Your task to perform on an android device: toggle location history Image 0: 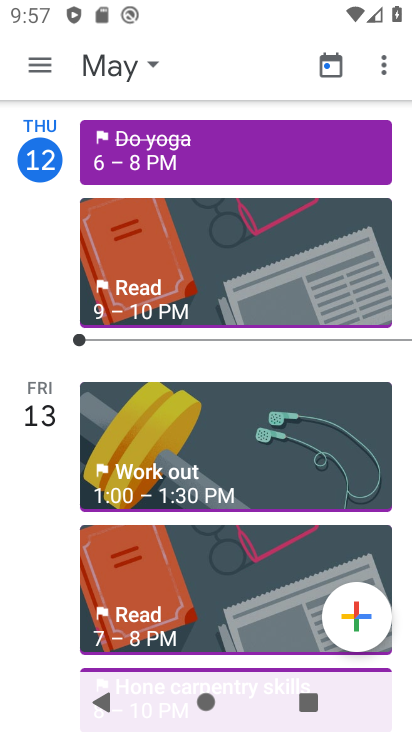
Step 0: press home button
Your task to perform on an android device: toggle location history Image 1: 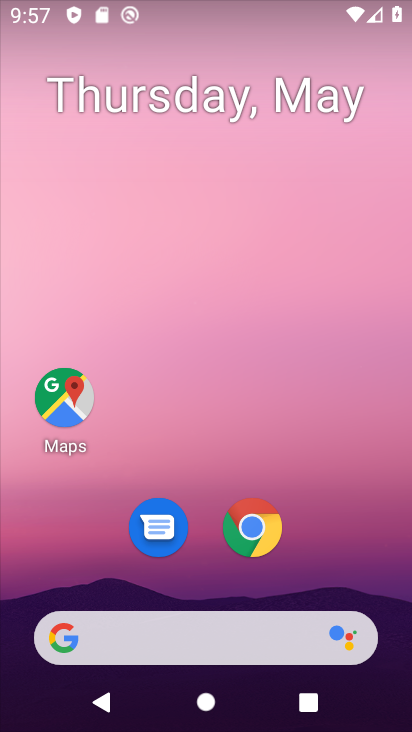
Step 1: drag from (225, 572) to (214, 173)
Your task to perform on an android device: toggle location history Image 2: 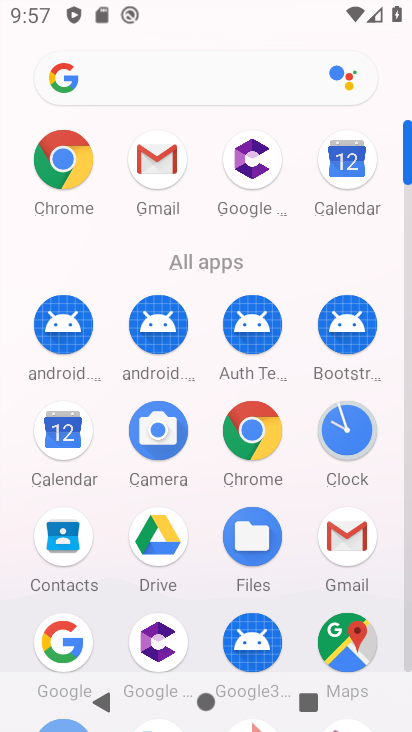
Step 2: drag from (289, 603) to (309, 314)
Your task to perform on an android device: toggle location history Image 3: 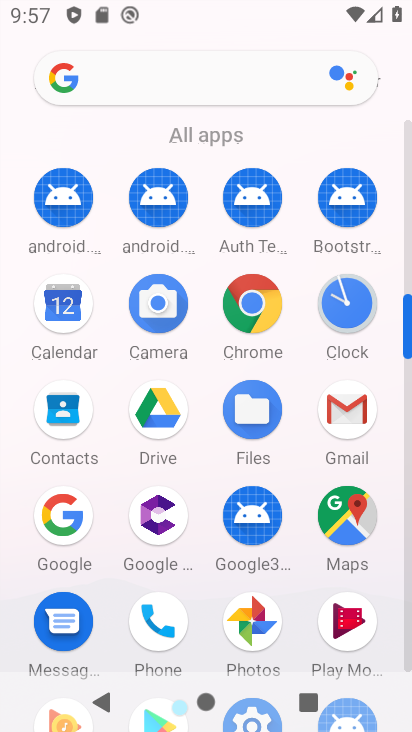
Step 3: drag from (290, 618) to (296, 211)
Your task to perform on an android device: toggle location history Image 4: 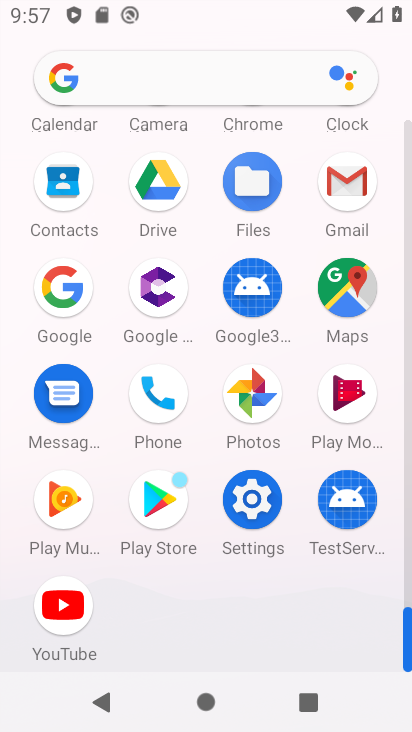
Step 4: click (252, 529)
Your task to perform on an android device: toggle location history Image 5: 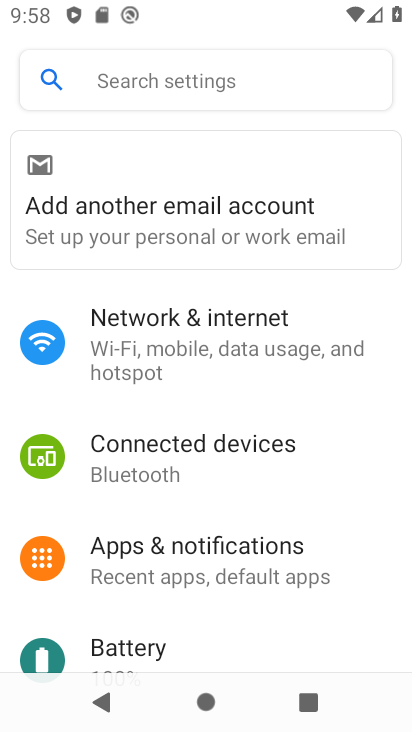
Step 5: drag from (257, 590) to (271, 287)
Your task to perform on an android device: toggle location history Image 6: 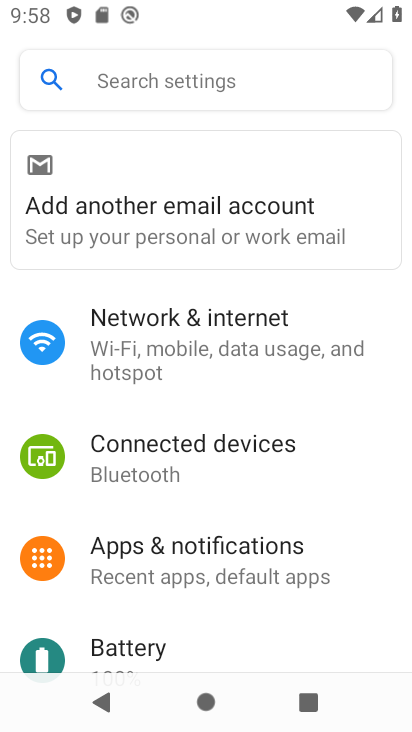
Step 6: drag from (196, 594) to (198, 211)
Your task to perform on an android device: toggle location history Image 7: 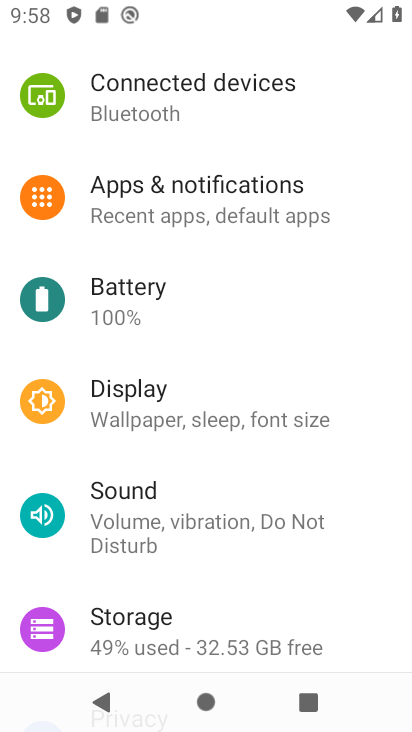
Step 7: drag from (165, 568) to (169, 186)
Your task to perform on an android device: toggle location history Image 8: 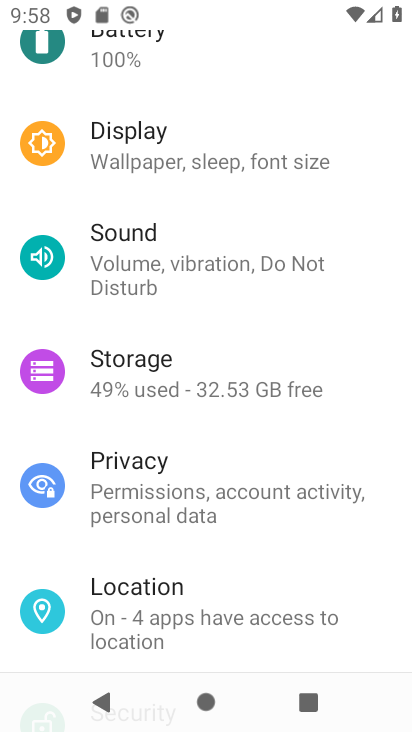
Step 8: click (158, 602)
Your task to perform on an android device: toggle location history Image 9: 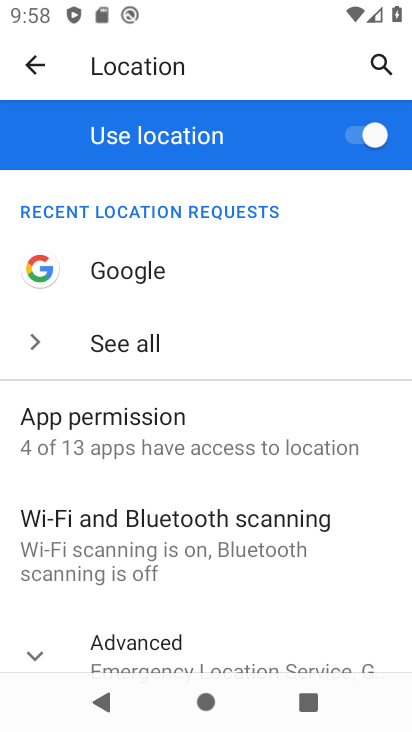
Step 9: drag from (165, 638) to (205, 256)
Your task to perform on an android device: toggle location history Image 10: 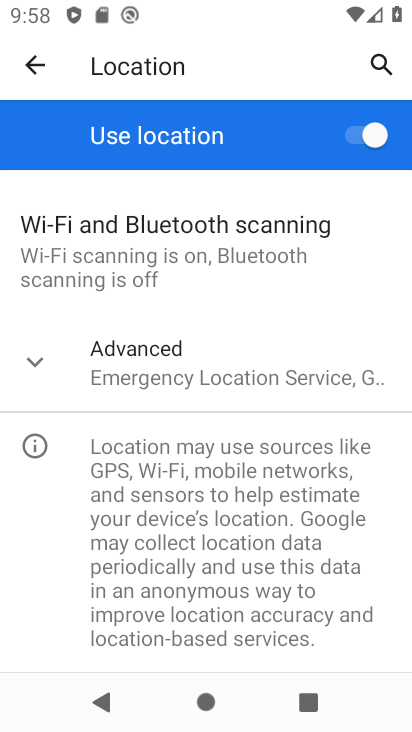
Step 10: click (145, 376)
Your task to perform on an android device: toggle location history Image 11: 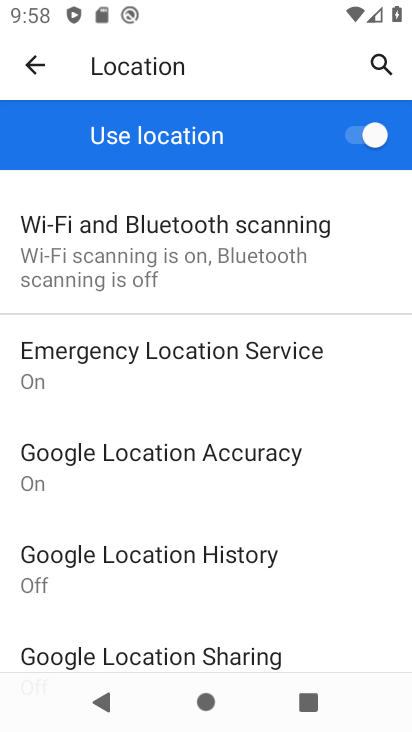
Step 11: drag from (145, 608) to (212, 255)
Your task to perform on an android device: toggle location history Image 12: 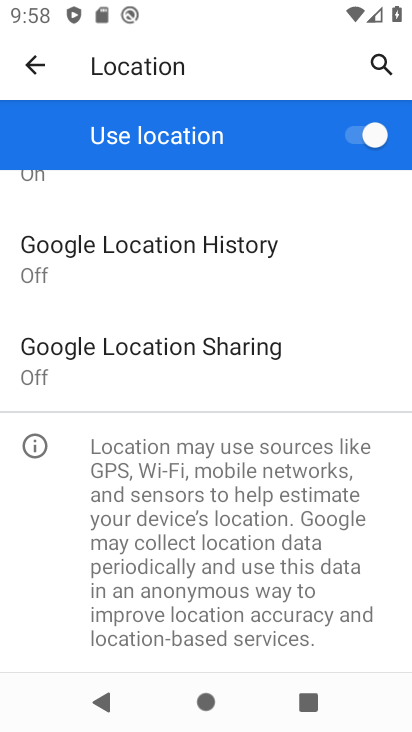
Step 12: click (149, 263)
Your task to perform on an android device: toggle location history Image 13: 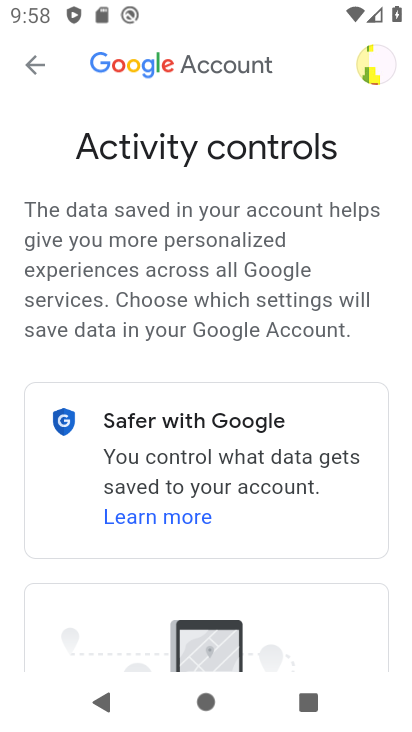
Step 13: drag from (267, 605) to (251, 250)
Your task to perform on an android device: toggle location history Image 14: 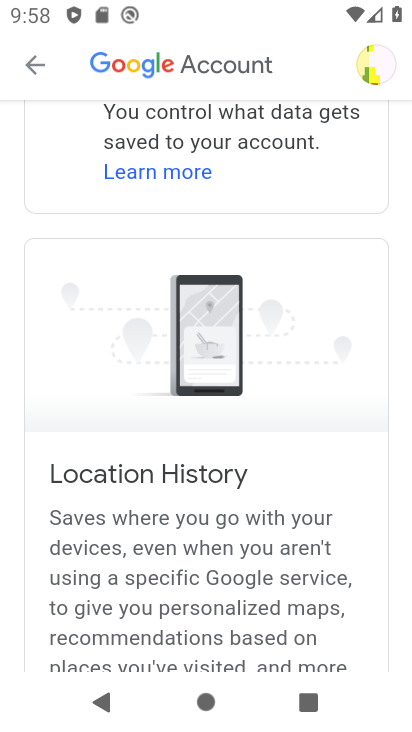
Step 14: drag from (262, 541) to (297, 184)
Your task to perform on an android device: toggle location history Image 15: 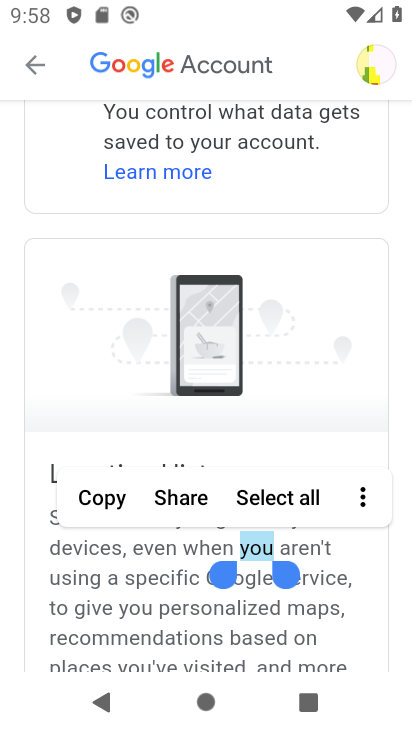
Step 15: drag from (211, 637) to (237, 347)
Your task to perform on an android device: toggle location history Image 16: 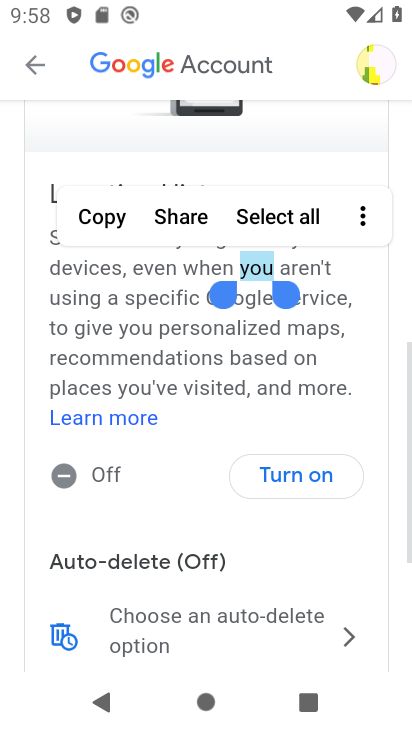
Step 16: drag from (159, 626) to (201, 325)
Your task to perform on an android device: toggle location history Image 17: 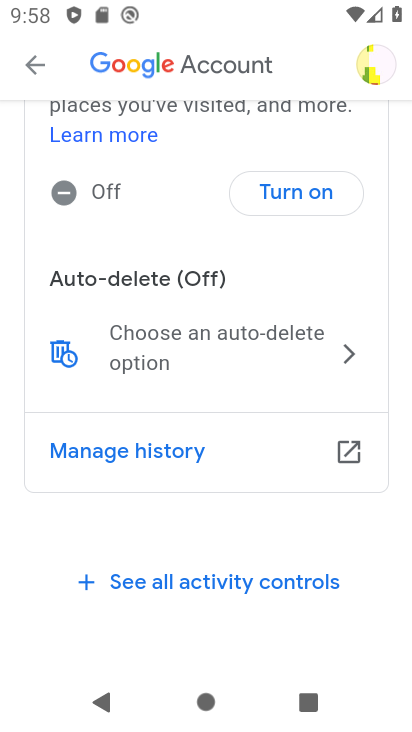
Step 17: click (281, 197)
Your task to perform on an android device: toggle location history Image 18: 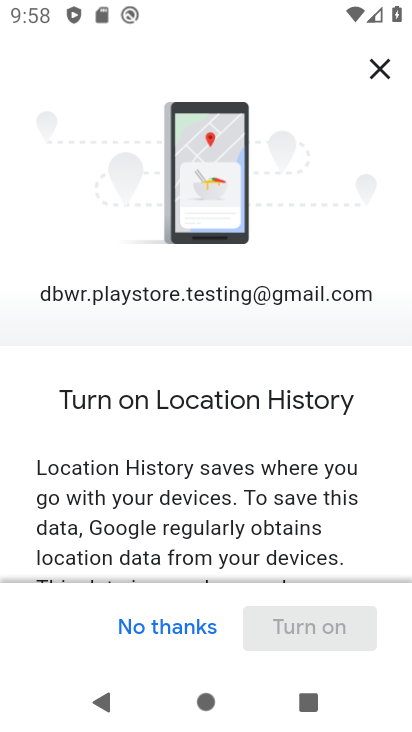
Step 18: drag from (262, 535) to (299, 105)
Your task to perform on an android device: toggle location history Image 19: 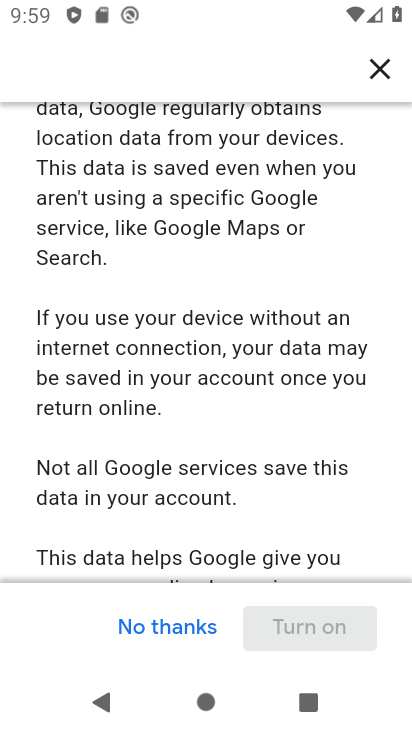
Step 19: drag from (197, 501) to (236, 194)
Your task to perform on an android device: toggle location history Image 20: 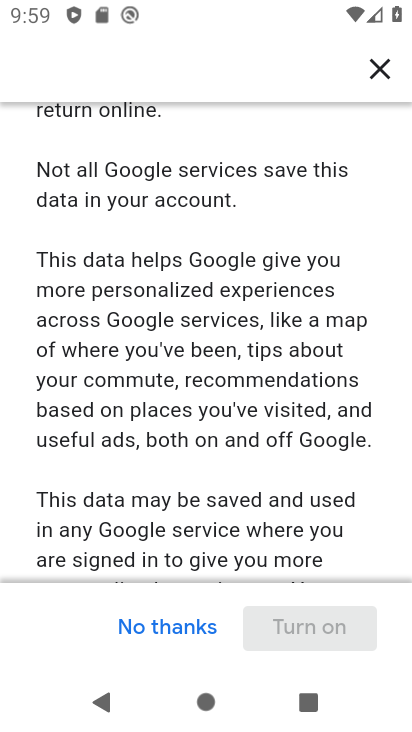
Step 20: click (232, 267)
Your task to perform on an android device: toggle location history Image 21: 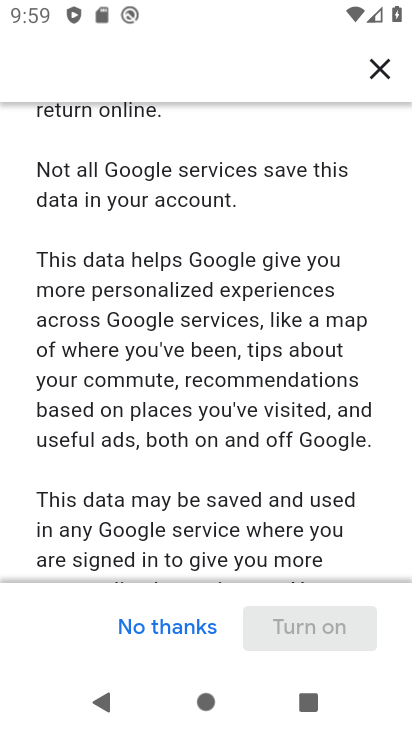
Step 21: drag from (197, 536) to (197, 202)
Your task to perform on an android device: toggle location history Image 22: 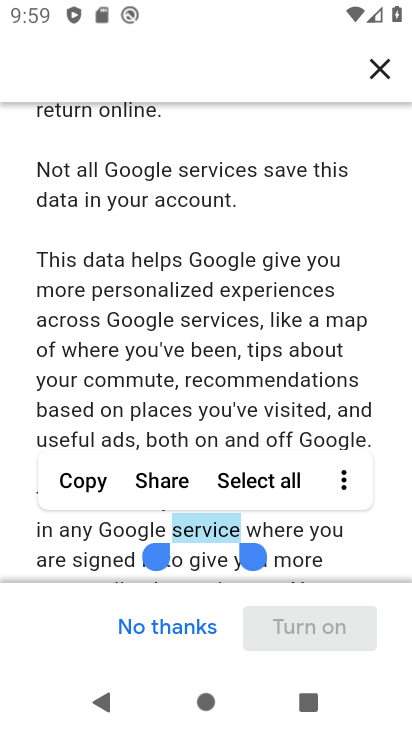
Step 22: click (88, 539)
Your task to perform on an android device: toggle location history Image 23: 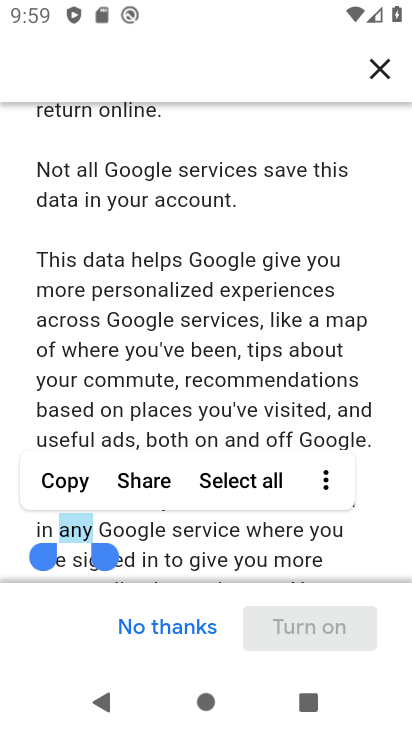
Step 23: drag from (262, 552) to (283, 234)
Your task to perform on an android device: toggle location history Image 24: 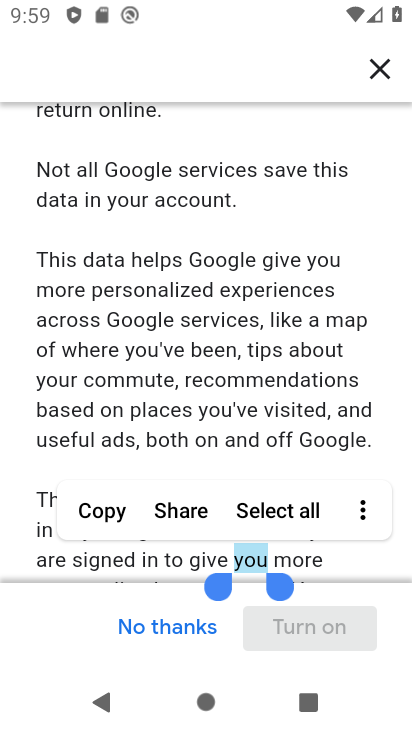
Step 24: click (221, 381)
Your task to perform on an android device: toggle location history Image 25: 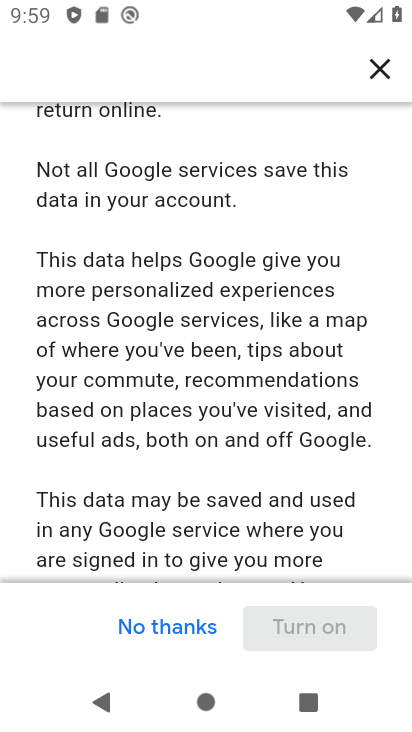
Step 25: drag from (185, 524) to (220, 163)
Your task to perform on an android device: toggle location history Image 26: 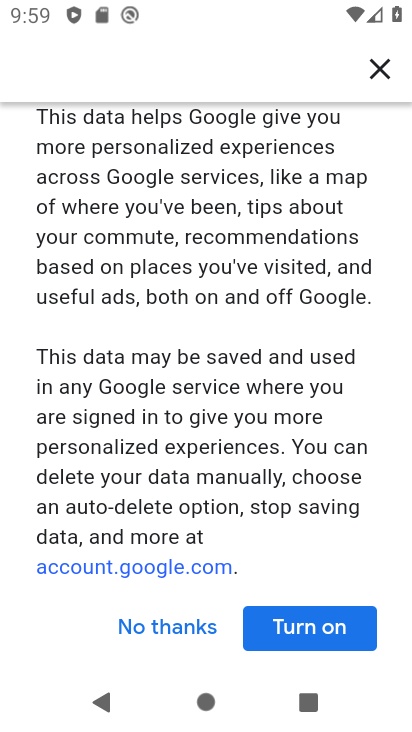
Step 26: click (278, 637)
Your task to perform on an android device: toggle location history Image 27: 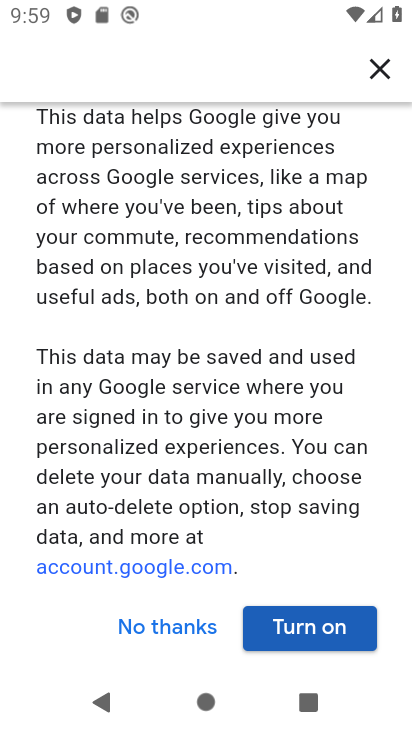
Step 27: click (302, 629)
Your task to perform on an android device: toggle location history Image 28: 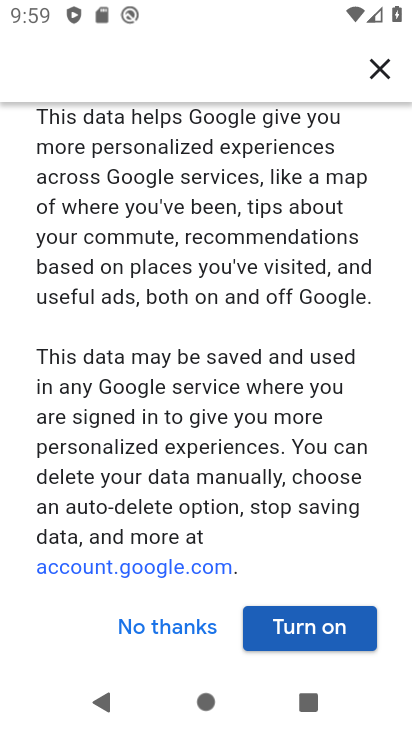
Step 28: click (306, 627)
Your task to perform on an android device: toggle location history Image 29: 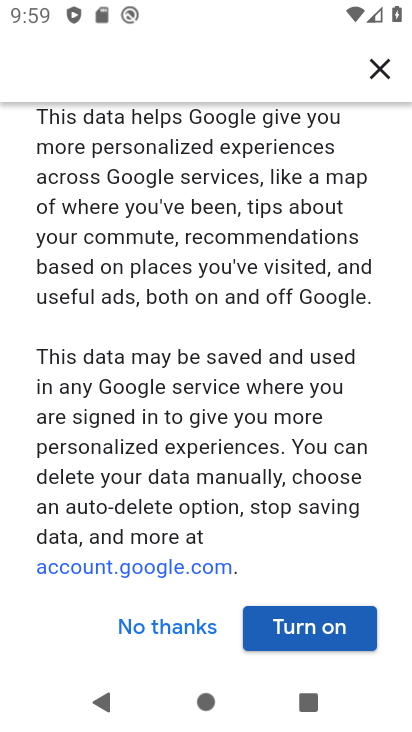
Step 29: click (327, 628)
Your task to perform on an android device: toggle location history Image 30: 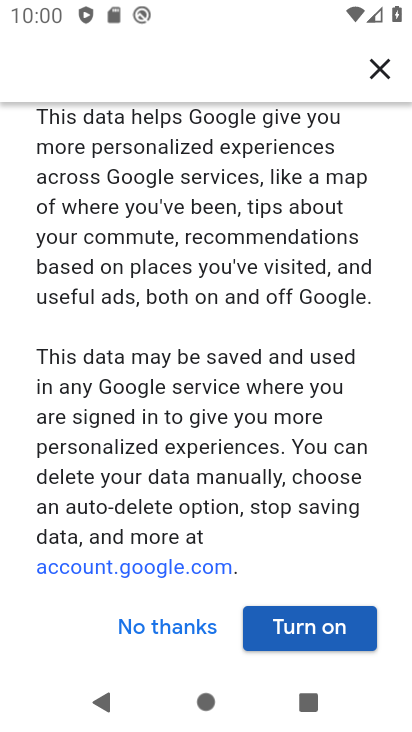
Step 30: click (327, 626)
Your task to perform on an android device: toggle location history Image 31: 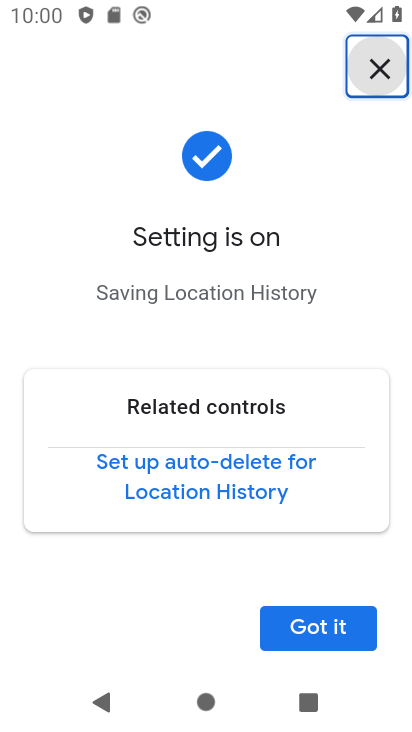
Step 31: click (323, 631)
Your task to perform on an android device: toggle location history Image 32: 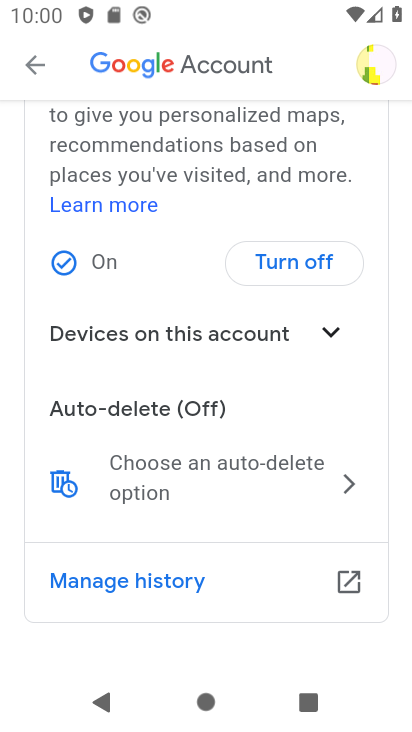
Step 32: task complete